Your task to perform on an android device: Open Yahoo.com Image 0: 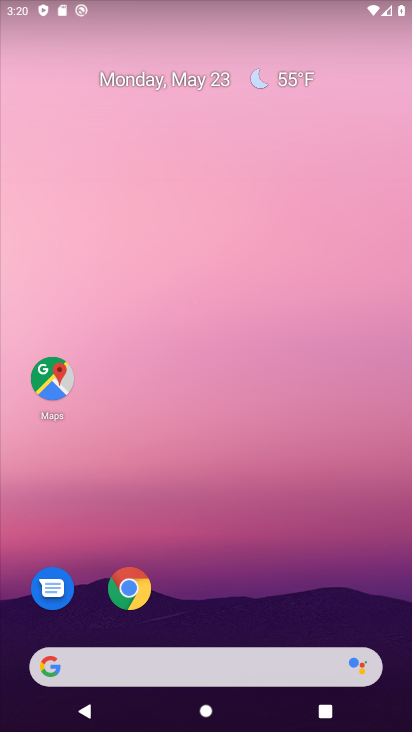
Step 0: drag from (208, 586) to (193, 145)
Your task to perform on an android device: Open Yahoo.com Image 1: 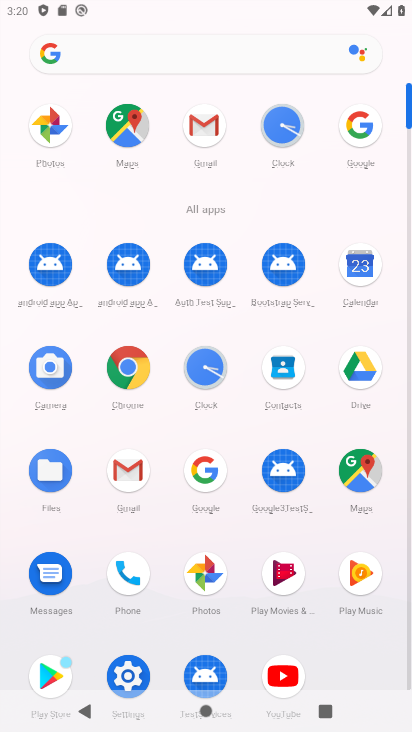
Step 1: click (123, 368)
Your task to perform on an android device: Open Yahoo.com Image 2: 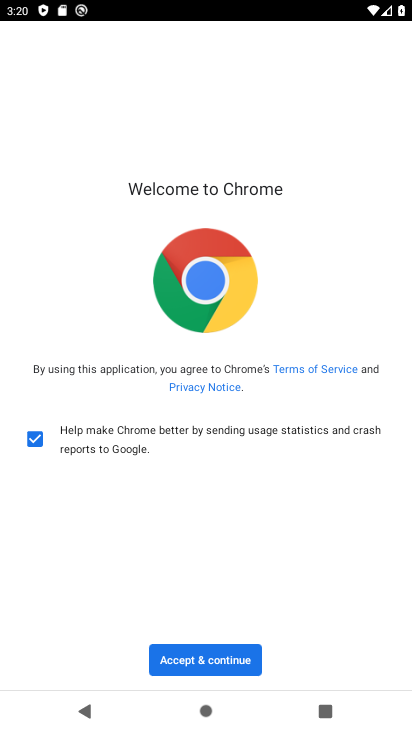
Step 2: click (196, 657)
Your task to perform on an android device: Open Yahoo.com Image 3: 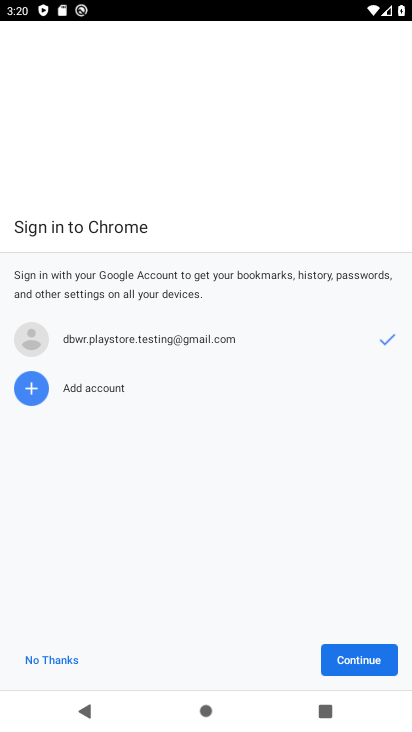
Step 3: click (343, 658)
Your task to perform on an android device: Open Yahoo.com Image 4: 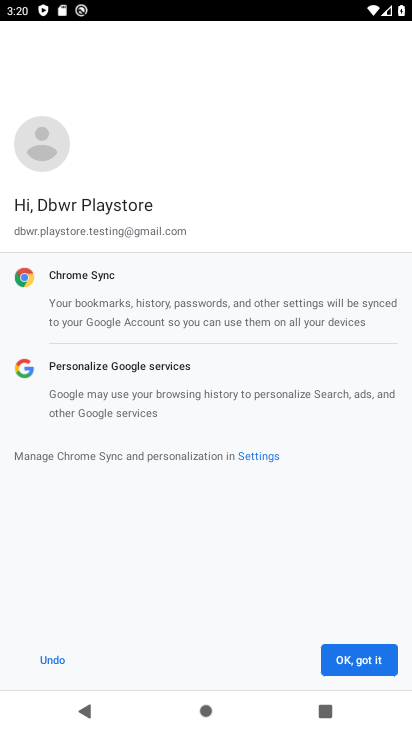
Step 4: click (343, 658)
Your task to perform on an android device: Open Yahoo.com Image 5: 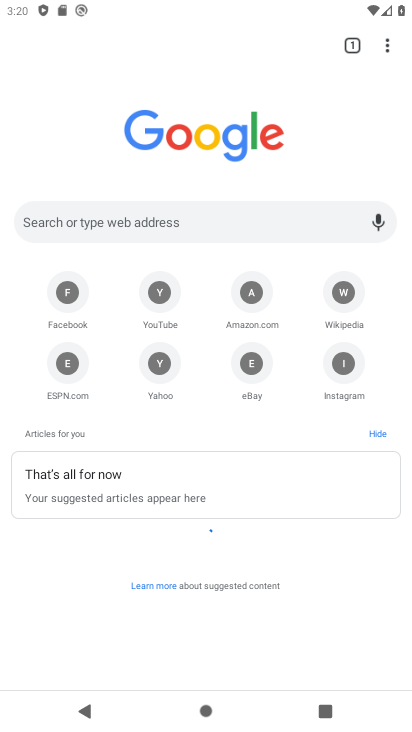
Step 5: click (159, 367)
Your task to perform on an android device: Open Yahoo.com Image 6: 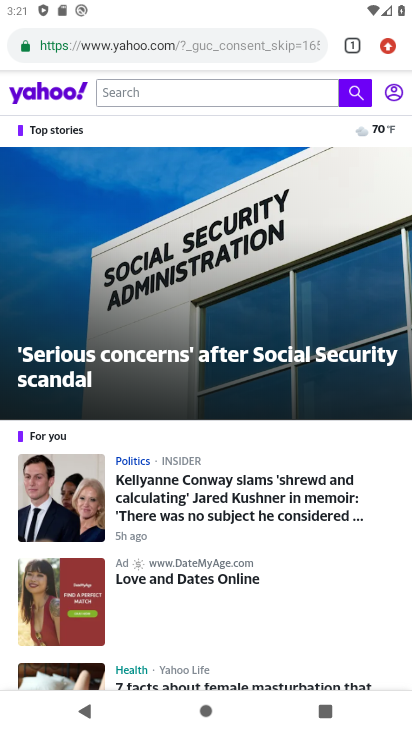
Step 6: task complete